Your task to perform on an android device: Search for seafood restaurants on Google Maps Image 0: 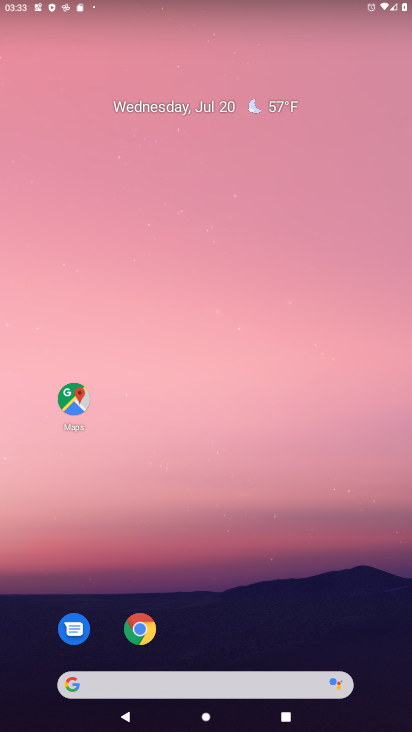
Step 0: drag from (372, 660) to (353, 144)
Your task to perform on an android device: Search for seafood restaurants on Google Maps Image 1: 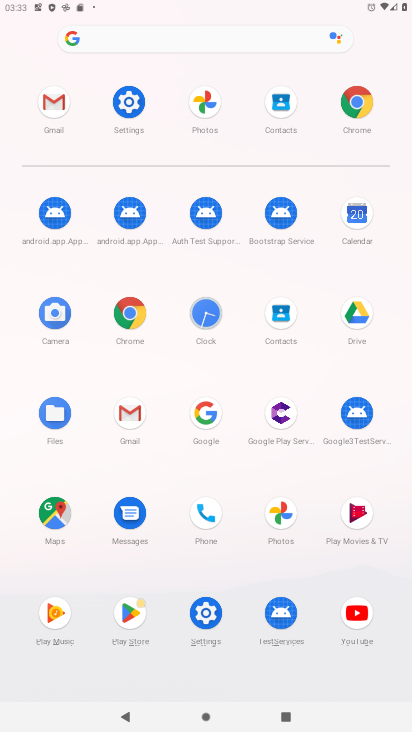
Step 1: click (355, 213)
Your task to perform on an android device: Search for seafood restaurants on Google Maps Image 2: 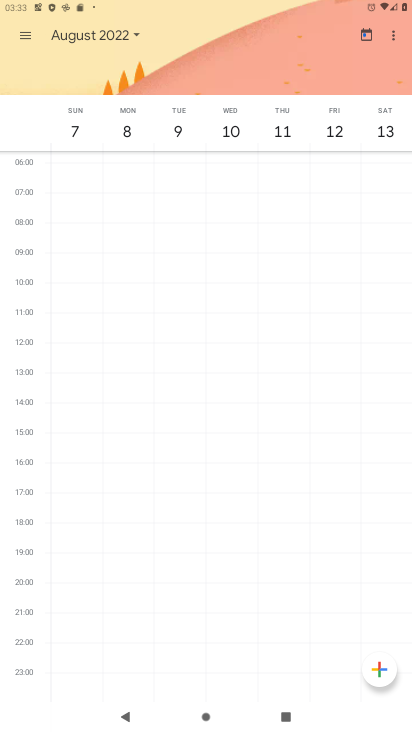
Step 2: press home button
Your task to perform on an android device: Search for seafood restaurants on Google Maps Image 3: 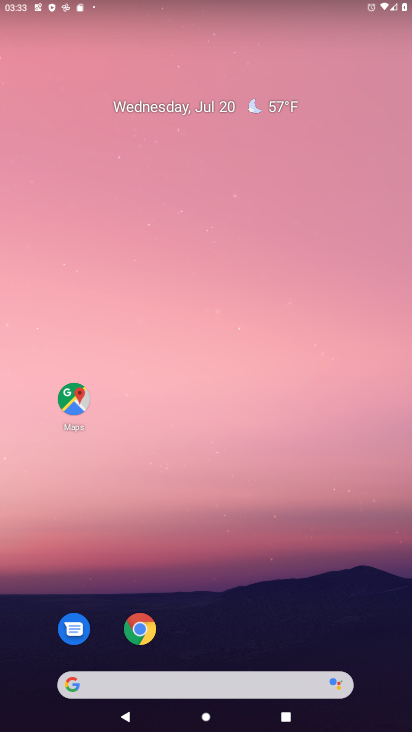
Step 3: click (74, 401)
Your task to perform on an android device: Search for seafood restaurants on Google Maps Image 4: 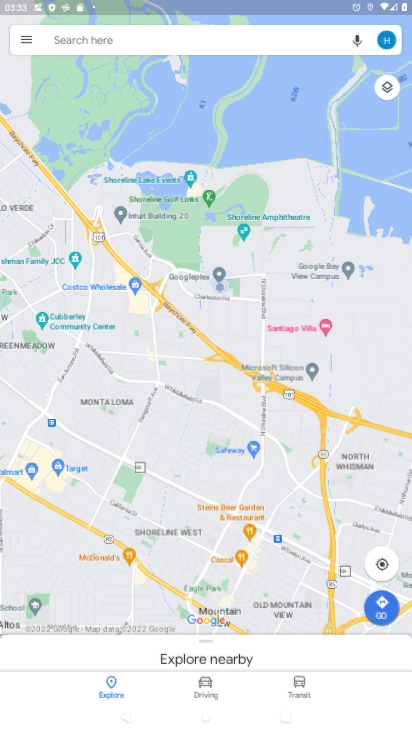
Step 4: click (93, 37)
Your task to perform on an android device: Search for seafood restaurants on Google Maps Image 5: 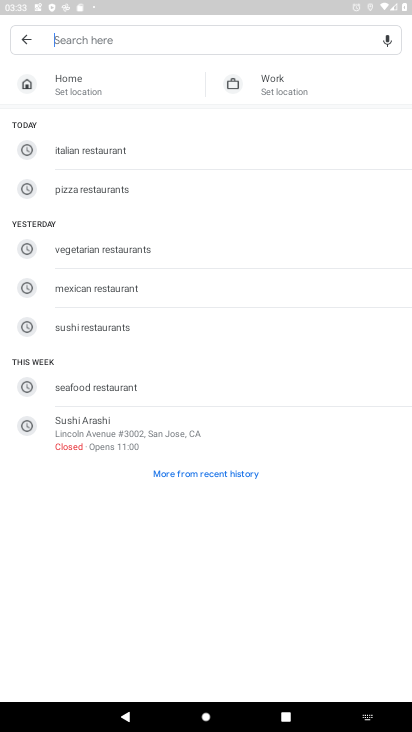
Step 5: type "seafood restaurants"
Your task to perform on an android device: Search for seafood restaurants on Google Maps Image 6: 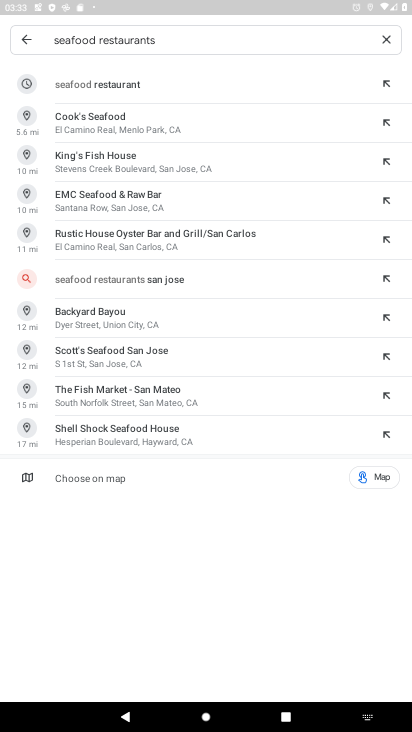
Step 6: click (88, 91)
Your task to perform on an android device: Search for seafood restaurants on Google Maps Image 7: 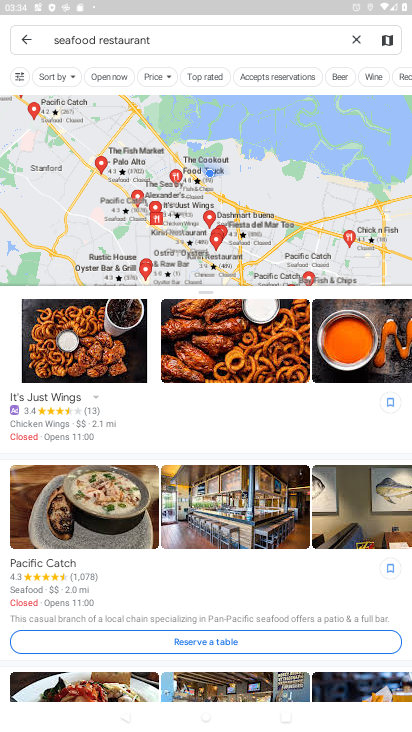
Step 7: task complete